Your task to perform on an android device: Go to ESPN.com Image 0: 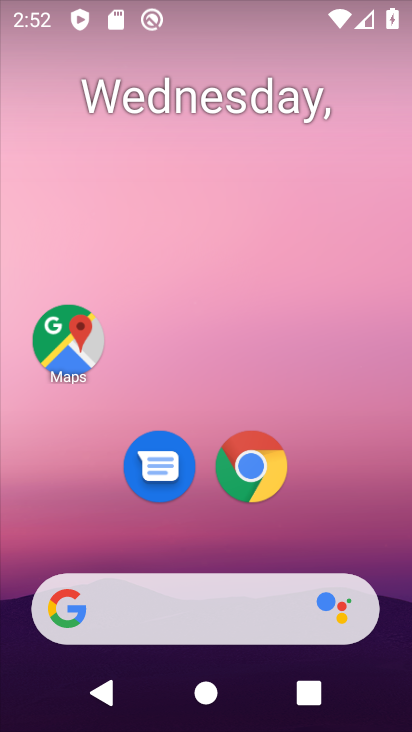
Step 0: click (243, 462)
Your task to perform on an android device: Go to ESPN.com Image 1: 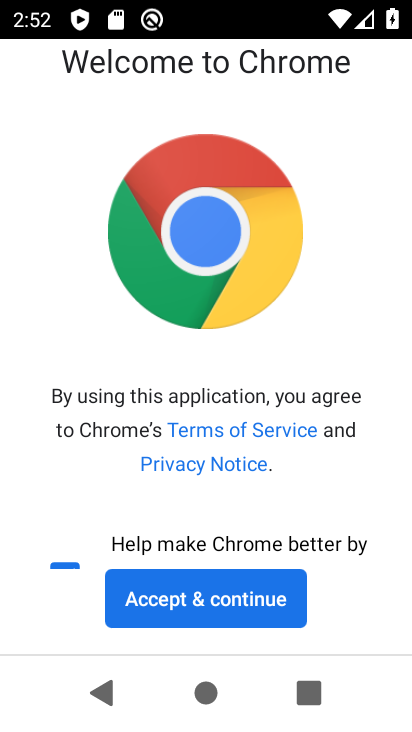
Step 1: click (241, 606)
Your task to perform on an android device: Go to ESPN.com Image 2: 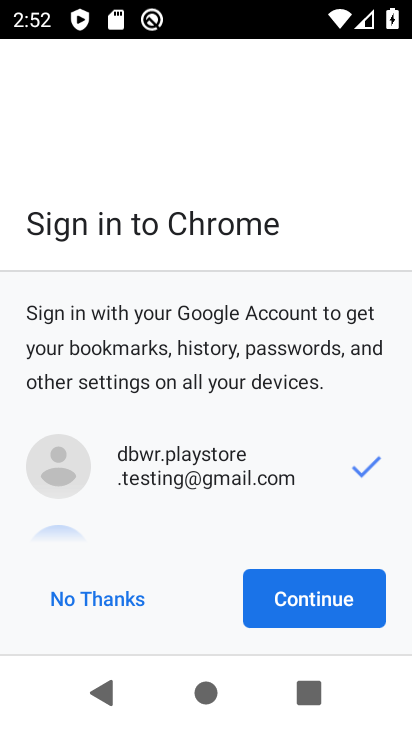
Step 2: click (358, 613)
Your task to perform on an android device: Go to ESPN.com Image 3: 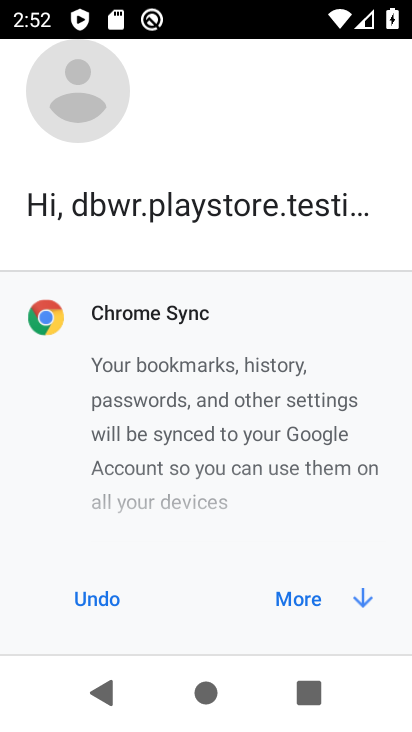
Step 3: click (296, 610)
Your task to perform on an android device: Go to ESPN.com Image 4: 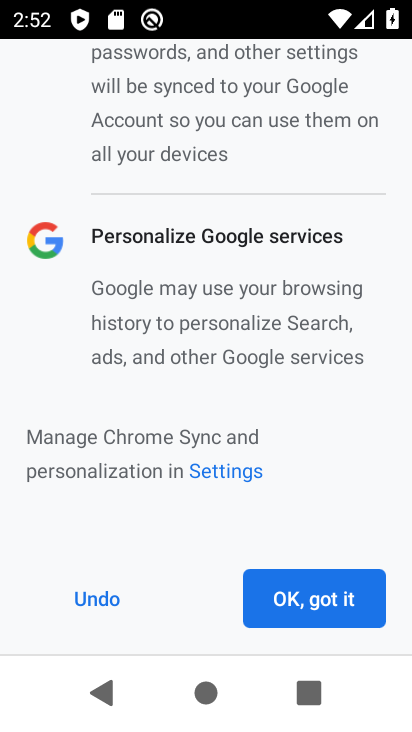
Step 4: click (361, 600)
Your task to perform on an android device: Go to ESPN.com Image 5: 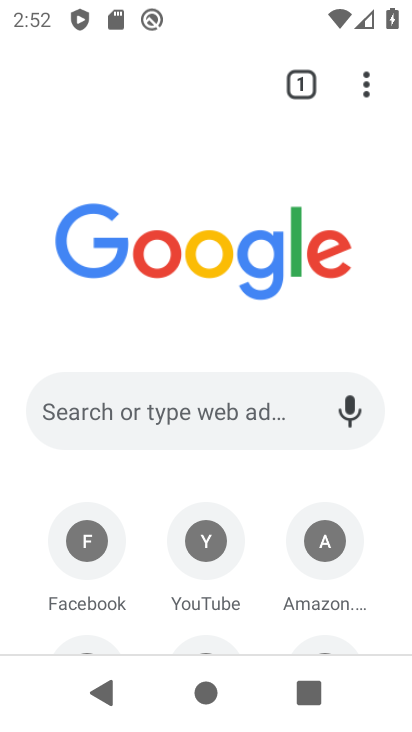
Step 5: drag from (204, 524) to (188, 134)
Your task to perform on an android device: Go to ESPN.com Image 6: 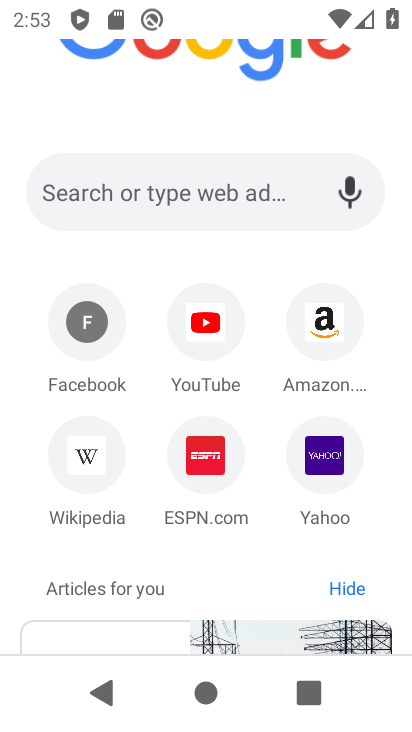
Step 6: click (225, 460)
Your task to perform on an android device: Go to ESPN.com Image 7: 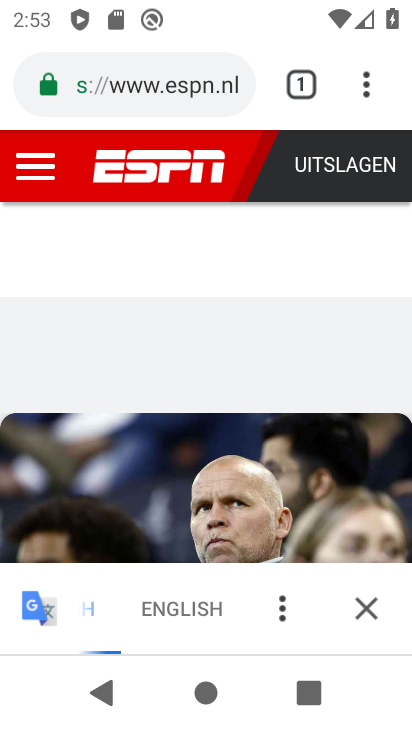
Step 7: task complete